Your task to perform on an android device: turn pop-ups on in chrome Image 0: 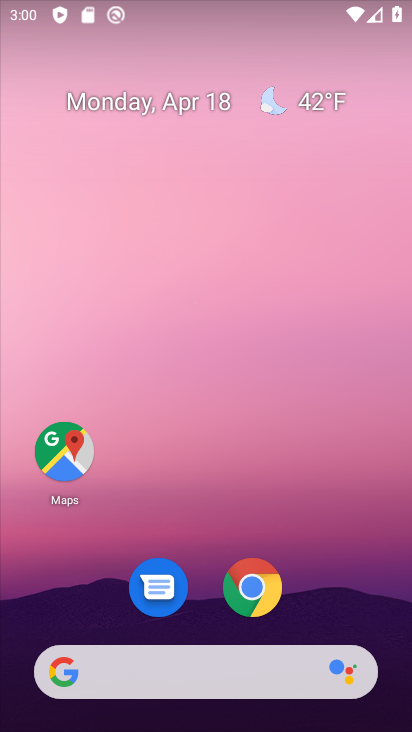
Step 0: click (261, 595)
Your task to perform on an android device: turn pop-ups on in chrome Image 1: 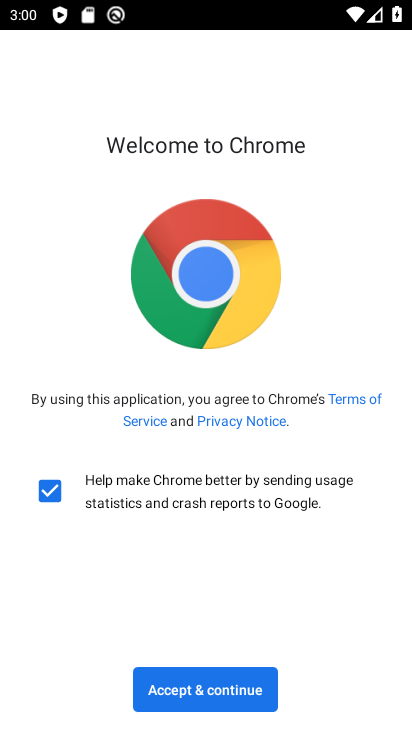
Step 1: click (232, 685)
Your task to perform on an android device: turn pop-ups on in chrome Image 2: 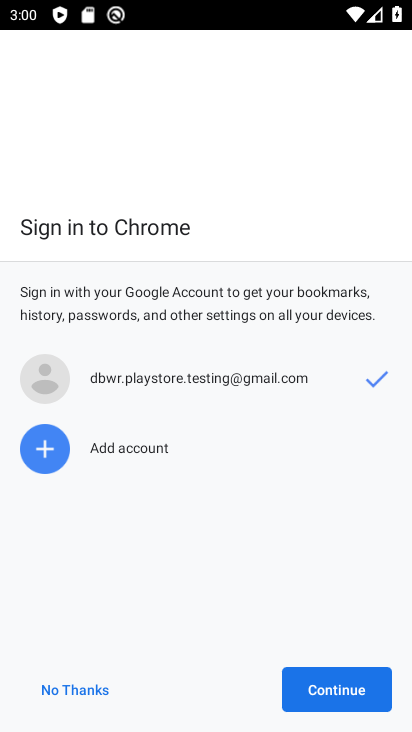
Step 2: click (328, 682)
Your task to perform on an android device: turn pop-ups on in chrome Image 3: 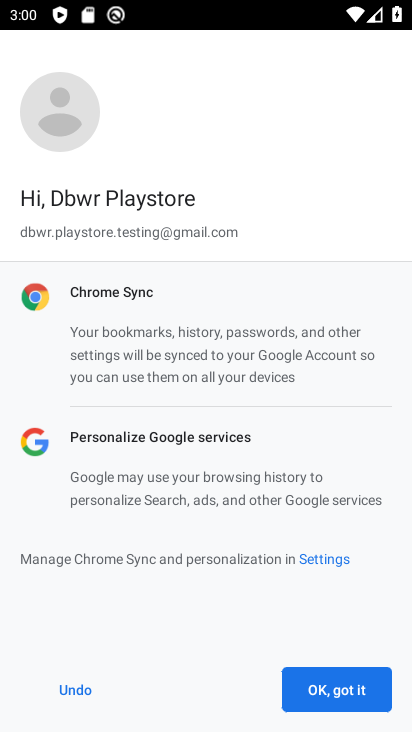
Step 3: click (329, 679)
Your task to perform on an android device: turn pop-ups on in chrome Image 4: 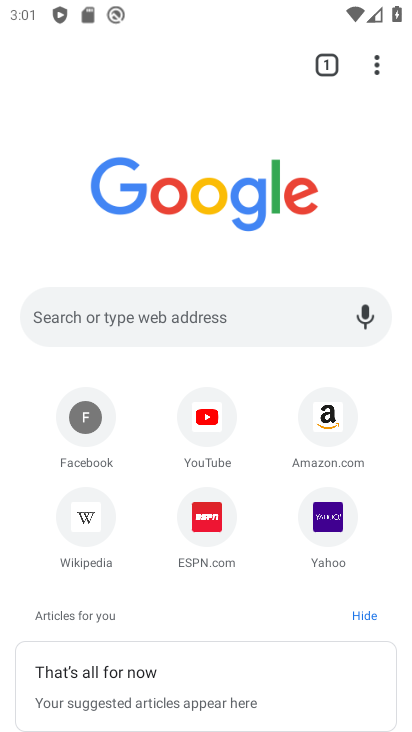
Step 4: click (377, 66)
Your task to perform on an android device: turn pop-ups on in chrome Image 5: 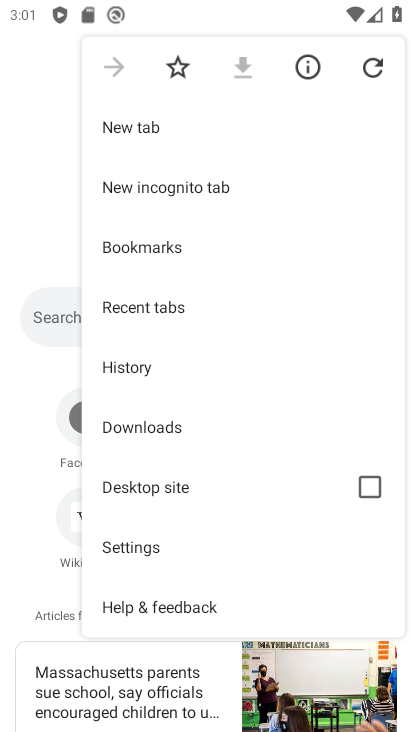
Step 5: click (159, 555)
Your task to perform on an android device: turn pop-ups on in chrome Image 6: 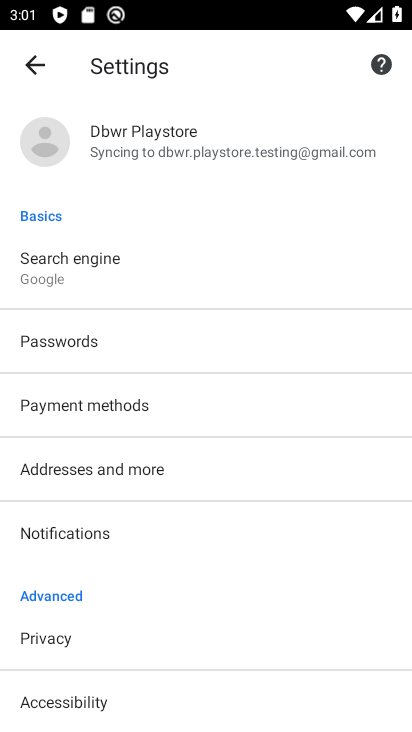
Step 6: drag from (129, 541) to (184, 178)
Your task to perform on an android device: turn pop-ups on in chrome Image 7: 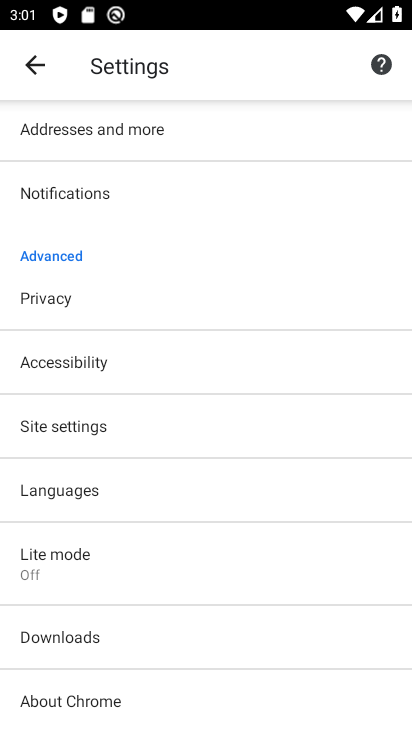
Step 7: click (112, 423)
Your task to perform on an android device: turn pop-ups on in chrome Image 8: 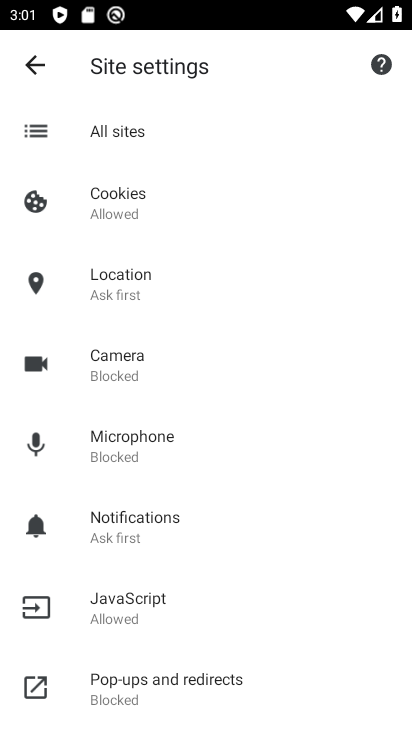
Step 8: click (148, 686)
Your task to perform on an android device: turn pop-ups on in chrome Image 9: 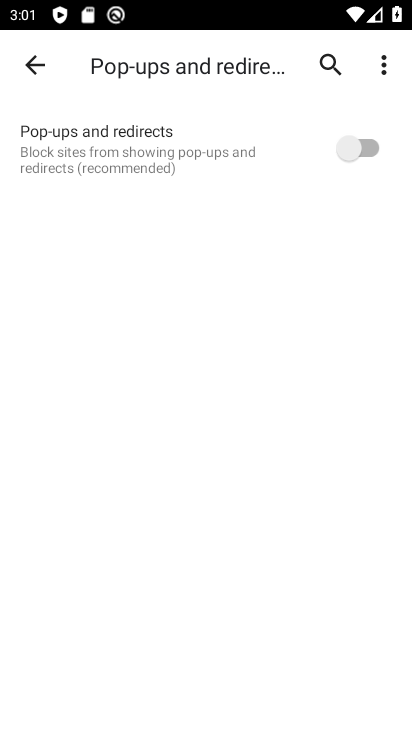
Step 9: click (364, 148)
Your task to perform on an android device: turn pop-ups on in chrome Image 10: 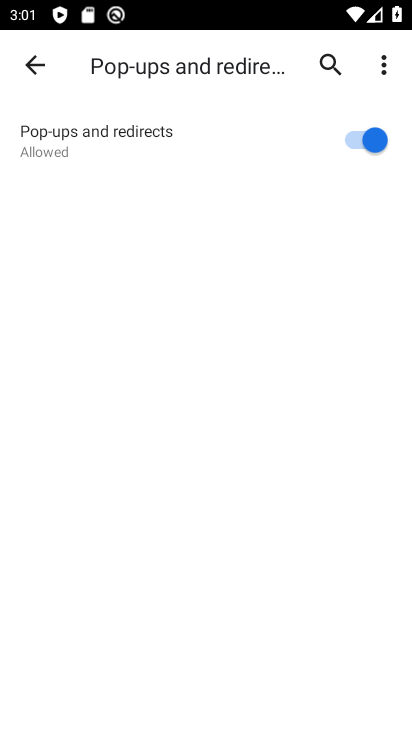
Step 10: task complete